Your task to perform on an android device: toggle notification dots Image 0: 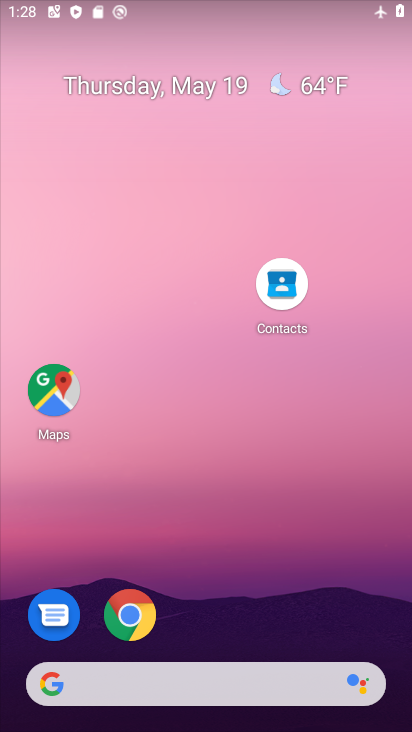
Step 0: drag from (227, 594) to (268, 61)
Your task to perform on an android device: toggle notification dots Image 1: 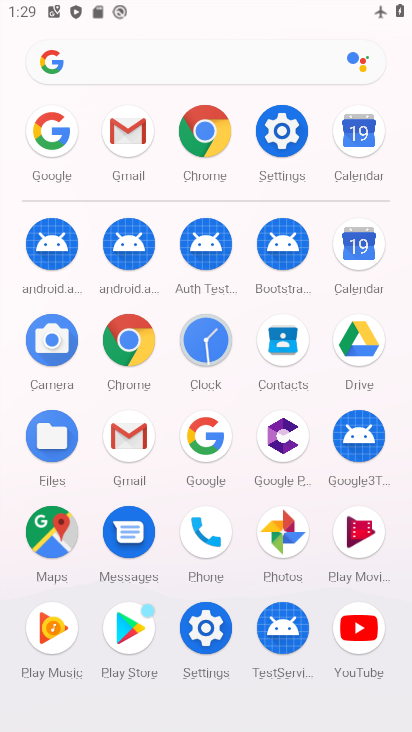
Step 1: drag from (205, 529) to (253, 285)
Your task to perform on an android device: toggle notification dots Image 2: 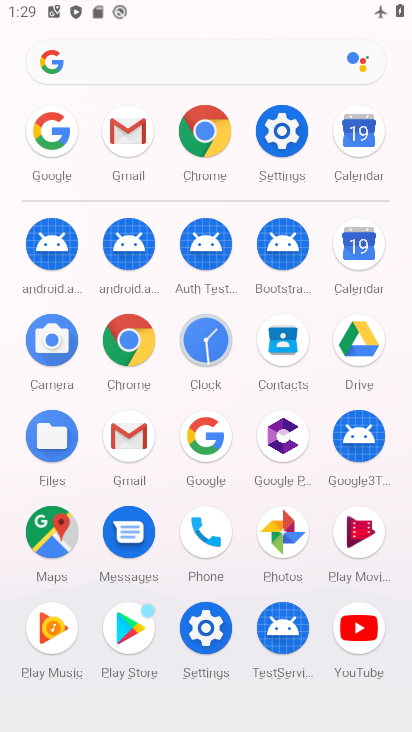
Step 2: click (199, 639)
Your task to perform on an android device: toggle notification dots Image 3: 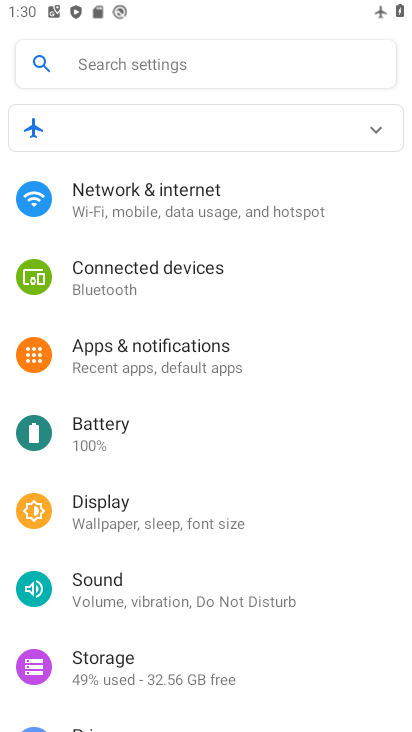
Step 3: click (164, 357)
Your task to perform on an android device: toggle notification dots Image 4: 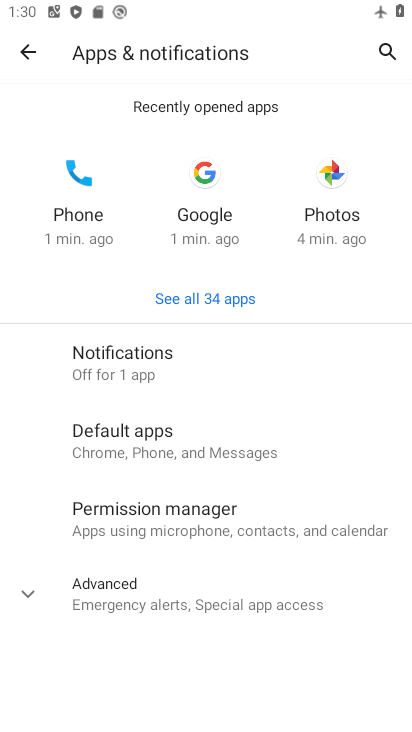
Step 4: click (190, 362)
Your task to perform on an android device: toggle notification dots Image 5: 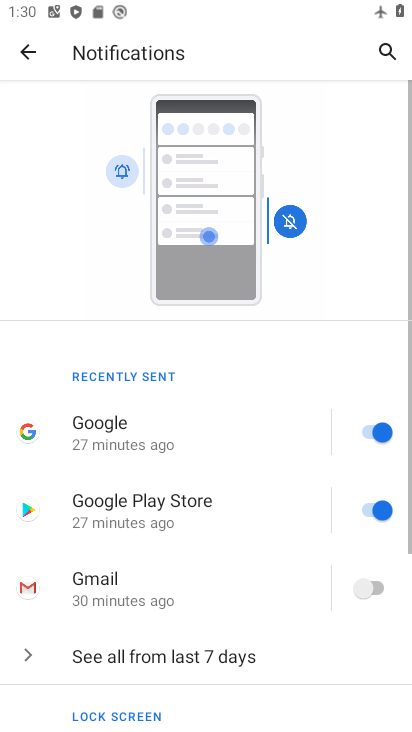
Step 5: drag from (196, 589) to (183, 204)
Your task to perform on an android device: toggle notification dots Image 6: 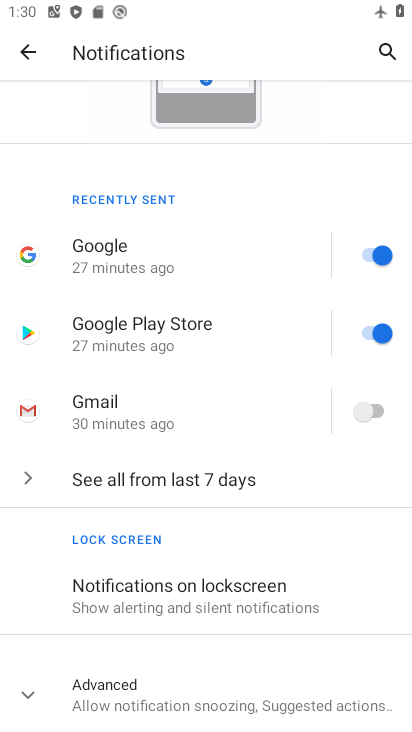
Step 6: drag from (261, 462) to (254, 312)
Your task to perform on an android device: toggle notification dots Image 7: 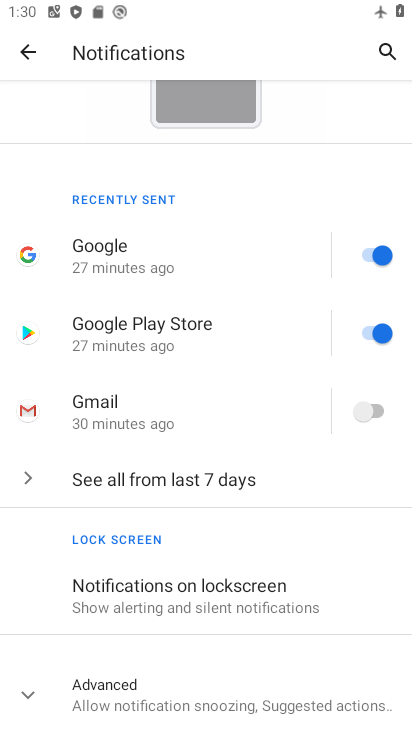
Step 7: click (224, 692)
Your task to perform on an android device: toggle notification dots Image 8: 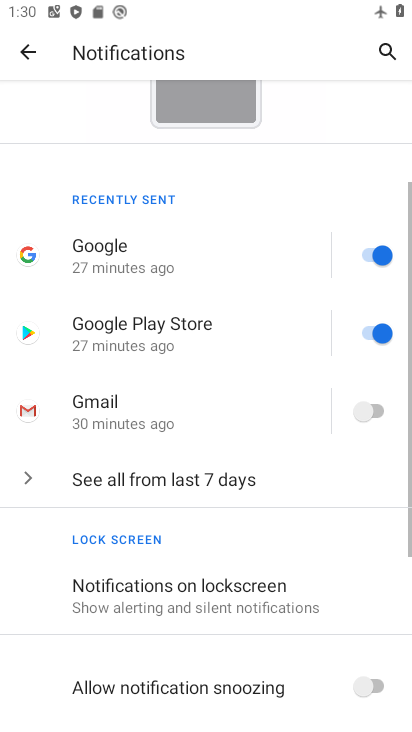
Step 8: drag from (219, 549) to (219, 288)
Your task to perform on an android device: toggle notification dots Image 9: 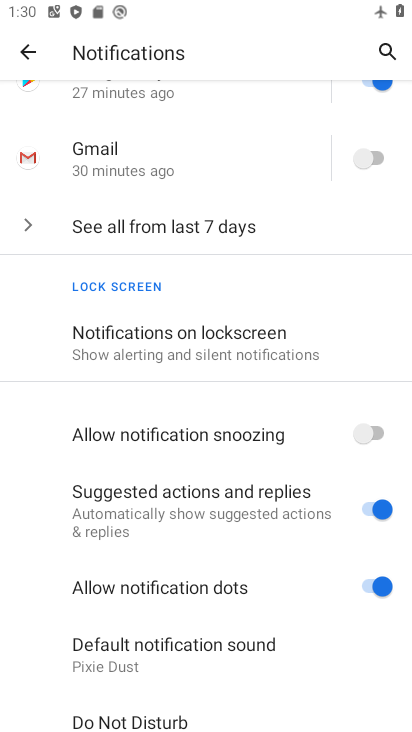
Step 9: click (348, 584)
Your task to perform on an android device: toggle notification dots Image 10: 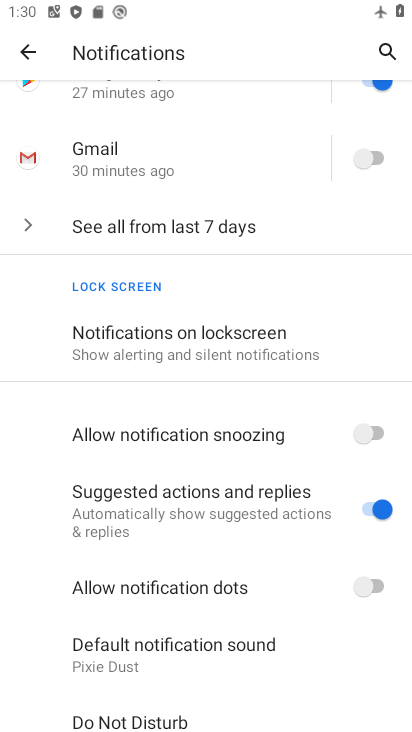
Step 10: task complete